Your task to perform on an android device: delete location history Image 0: 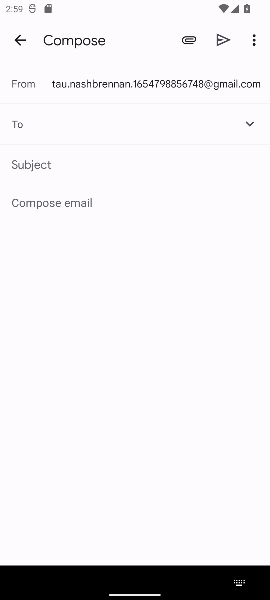
Step 0: press home button
Your task to perform on an android device: delete location history Image 1: 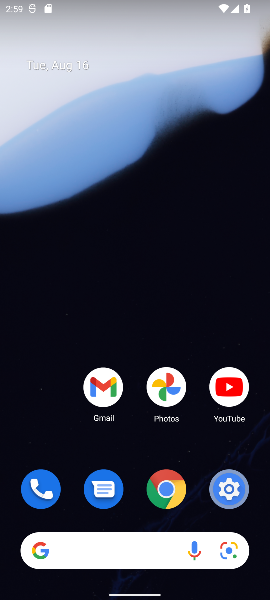
Step 1: click (6, 320)
Your task to perform on an android device: delete location history Image 2: 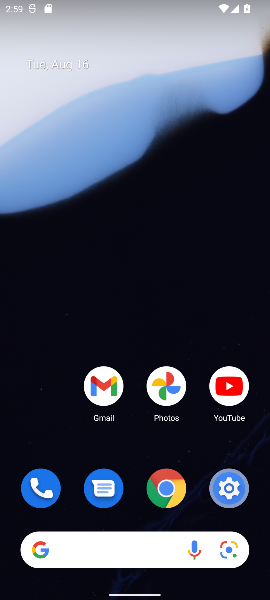
Step 2: task complete